Your task to perform on an android device: When is my next appointment? Image 0: 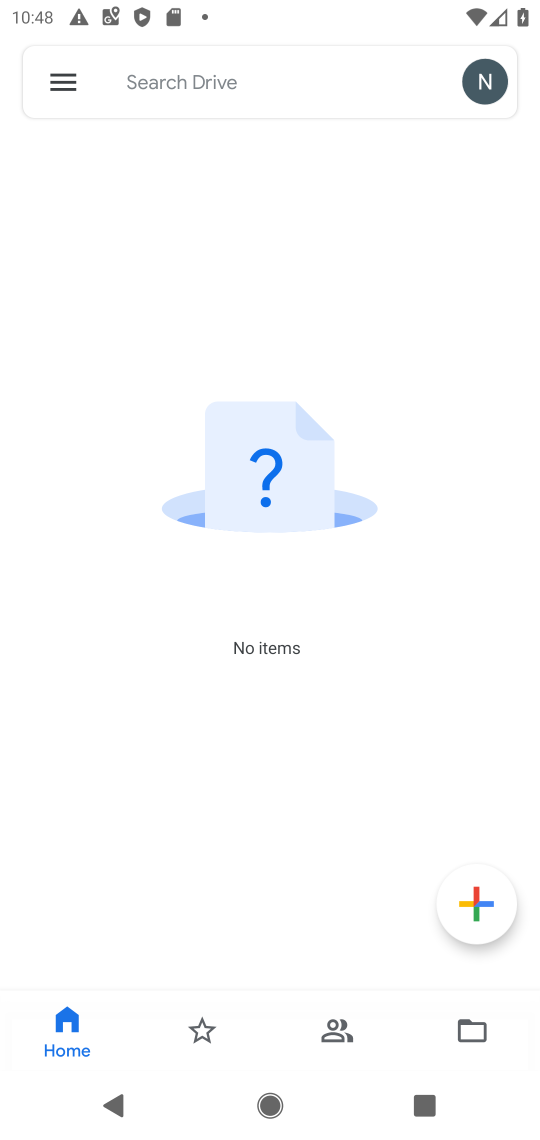
Step 0: press enter
Your task to perform on an android device: When is my next appointment? Image 1: 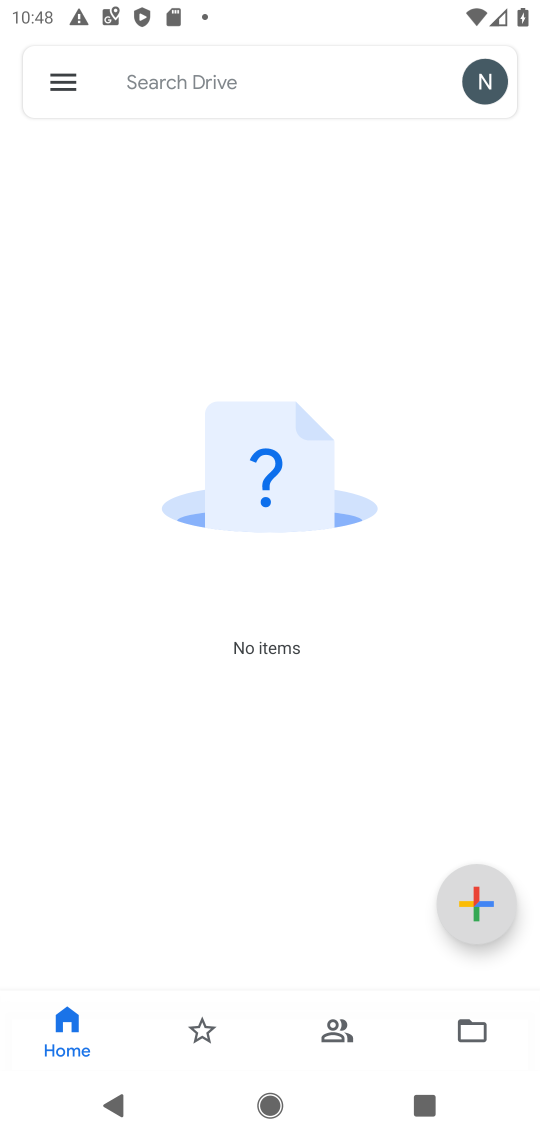
Step 1: press home button
Your task to perform on an android device: When is my next appointment? Image 2: 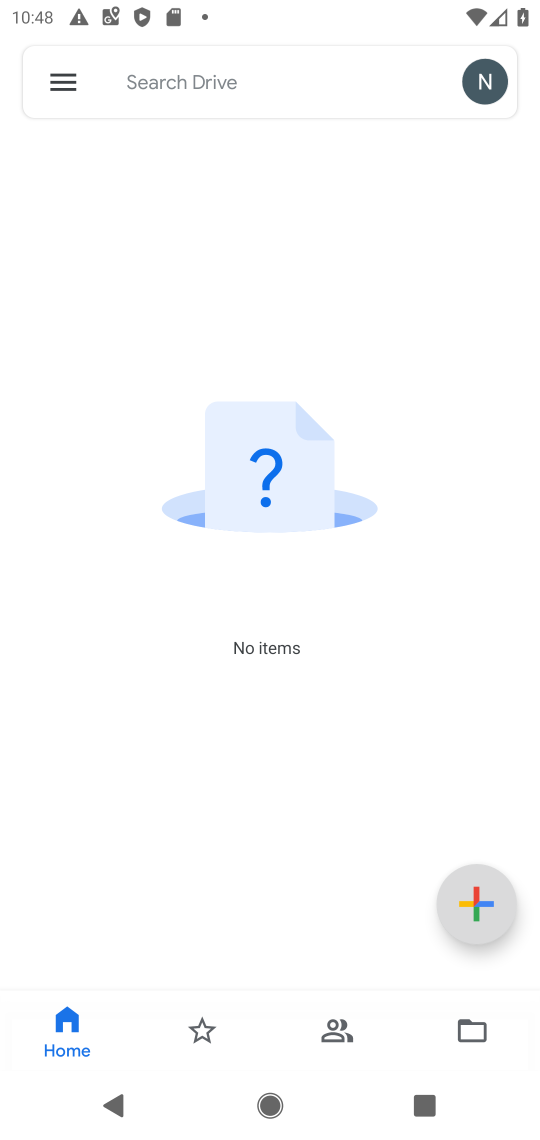
Step 2: press home button
Your task to perform on an android device: When is my next appointment? Image 3: 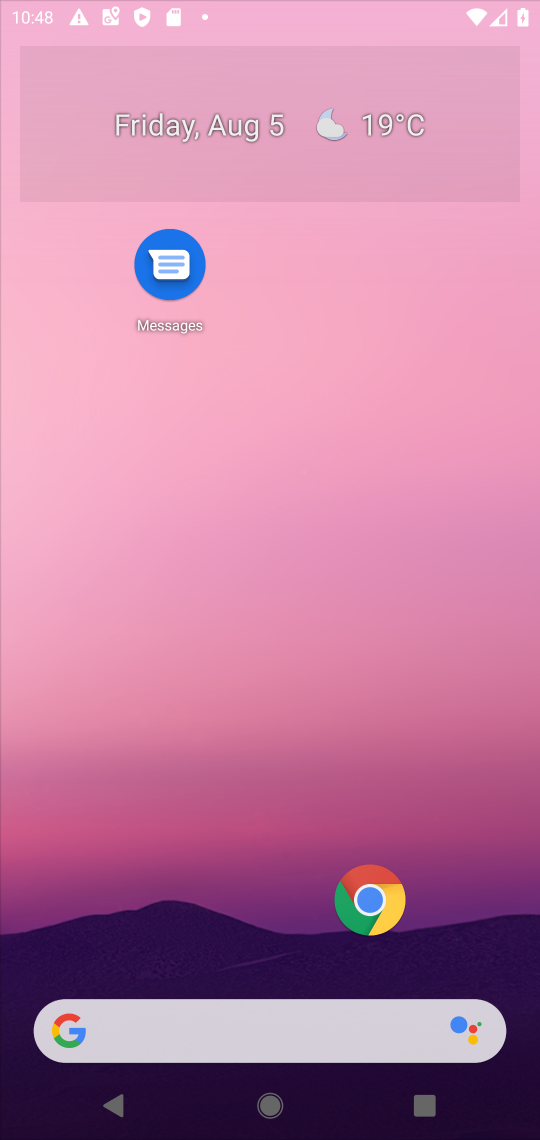
Step 3: press home button
Your task to perform on an android device: When is my next appointment? Image 4: 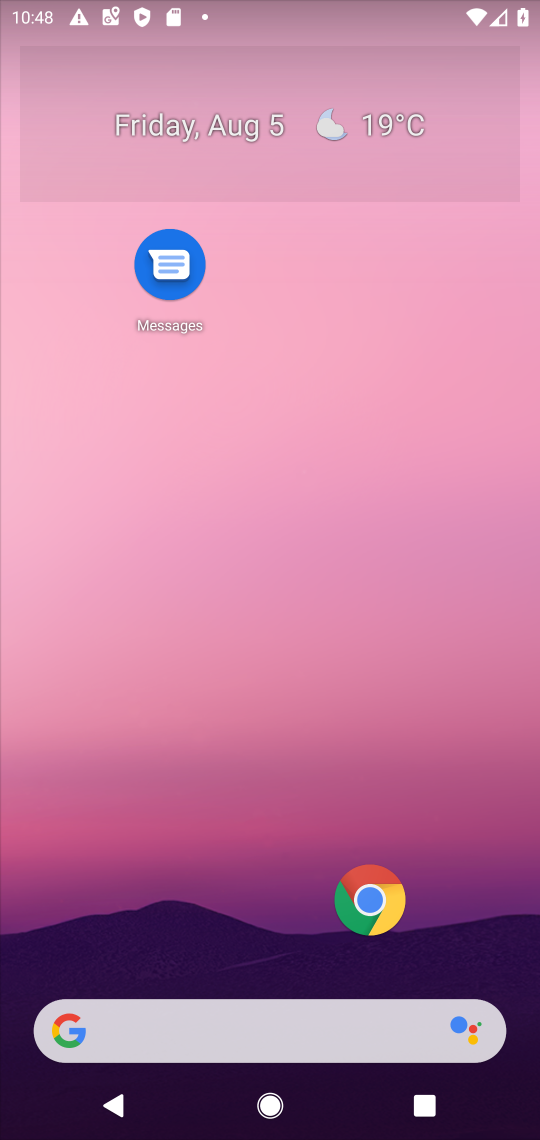
Step 4: drag from (131, 1034) to (127, 365)
Your task to perform on an android device: When is my next appointment? Image 5: 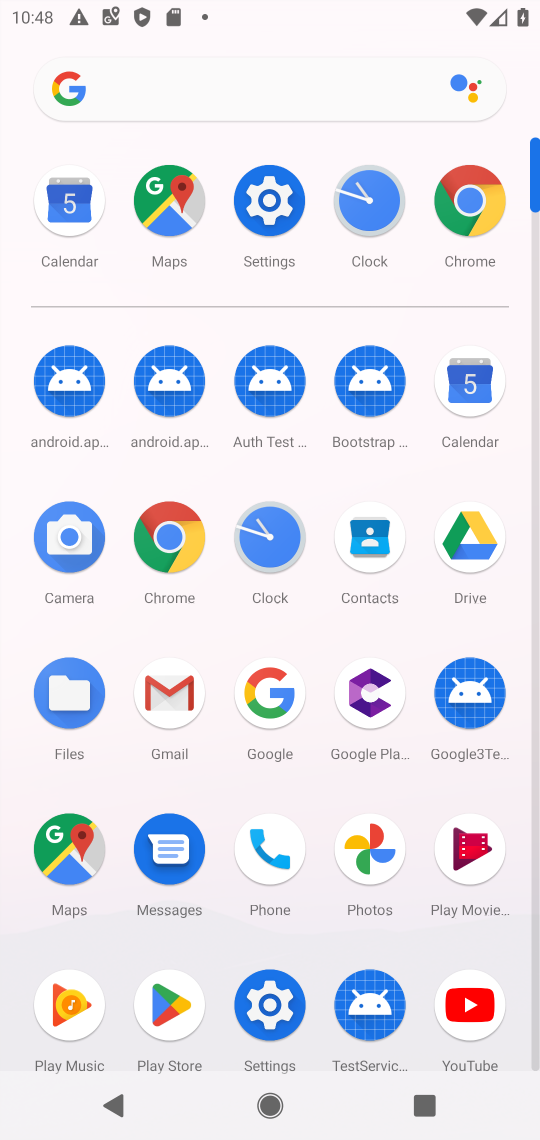
Step 5: click (459, 399)
Your task to perform on an android device: When is my next appointment? Image 6: 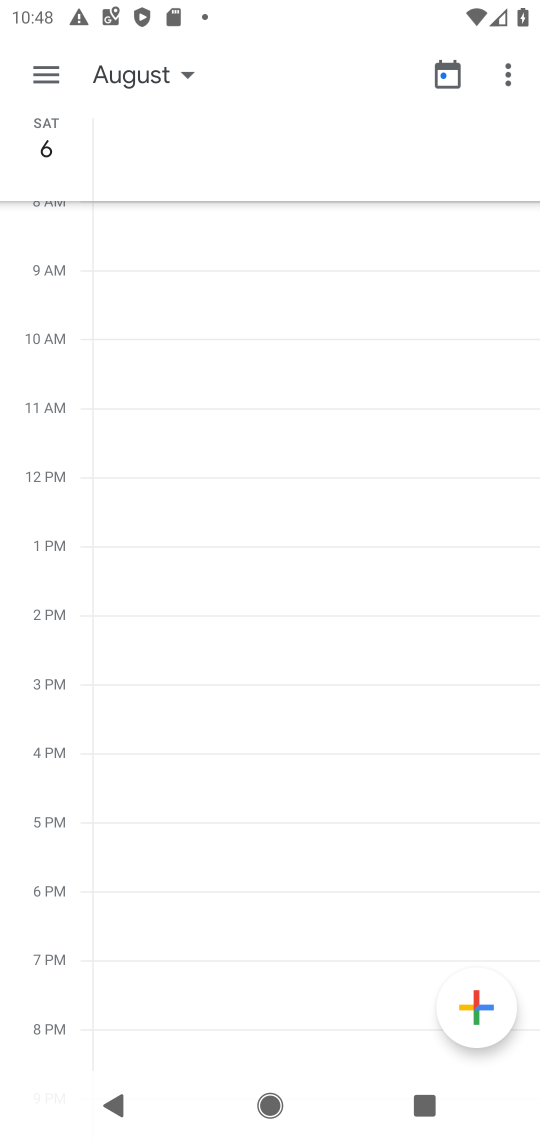
Step 6: click (141, 83)
Your task to perform on an android device: When is my next appointment? Image 7: 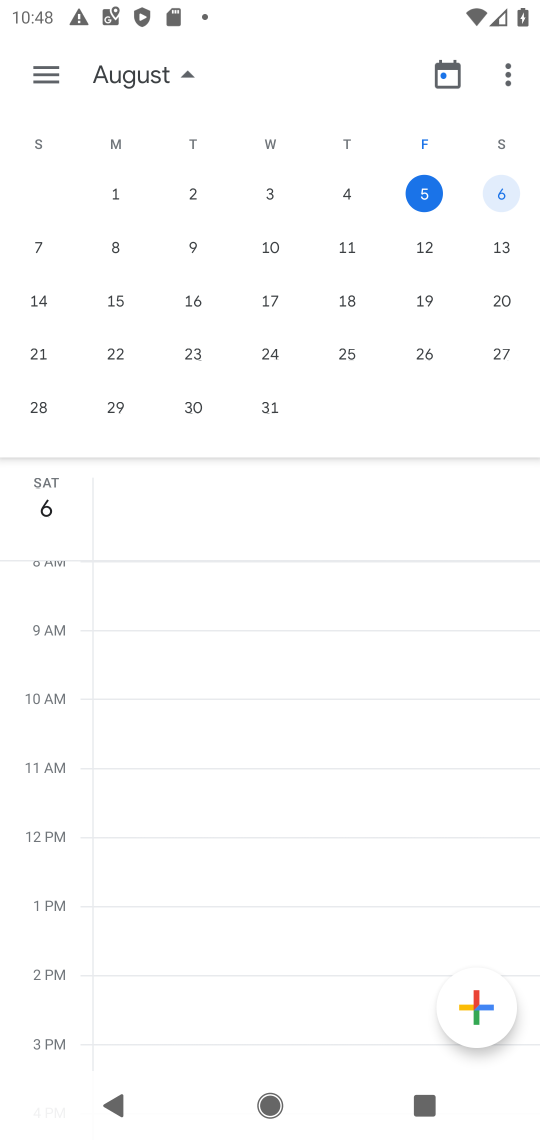
Step 7: click (51, 247)
Your task to perform on an android device: When is my next appointment? Image 8: 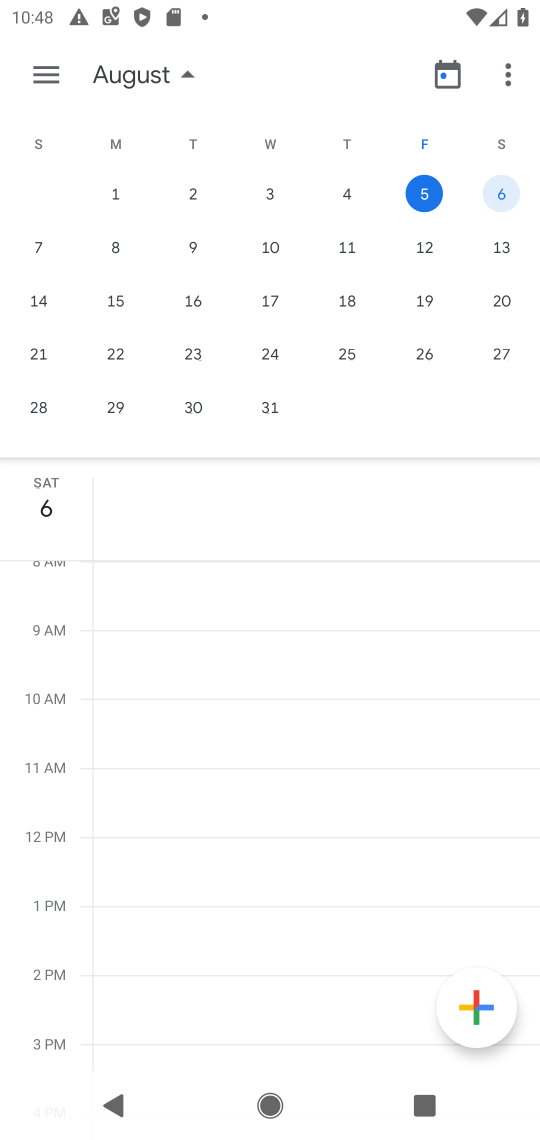
Step 8: click (493, 206)
Your task to perform on an android device: When is my next appointment? Image 9: 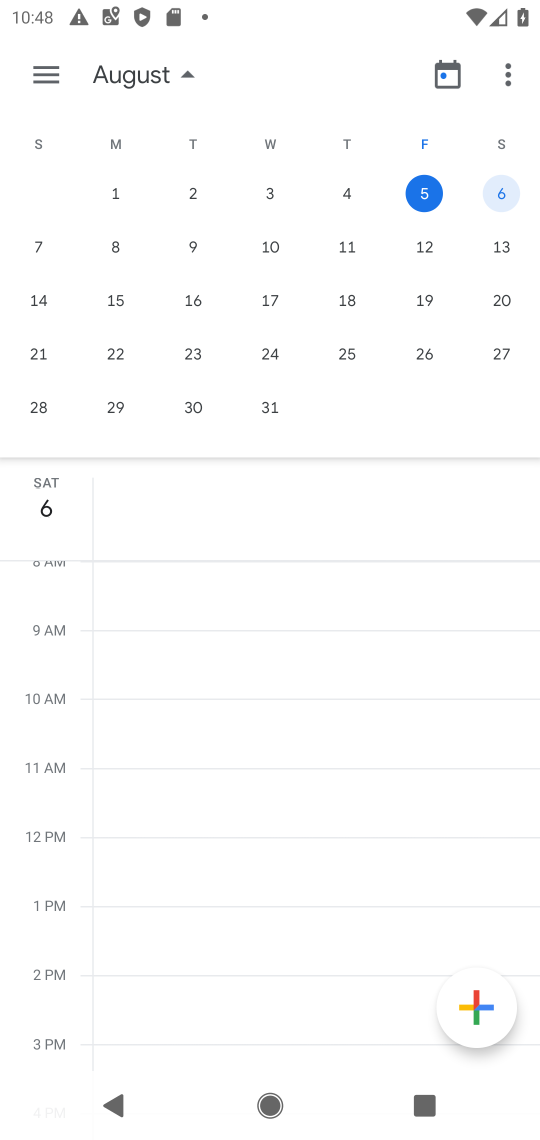
Step 9: click (497, 191)
Your task to perform on an android device: When is my next appointment? Image 10: 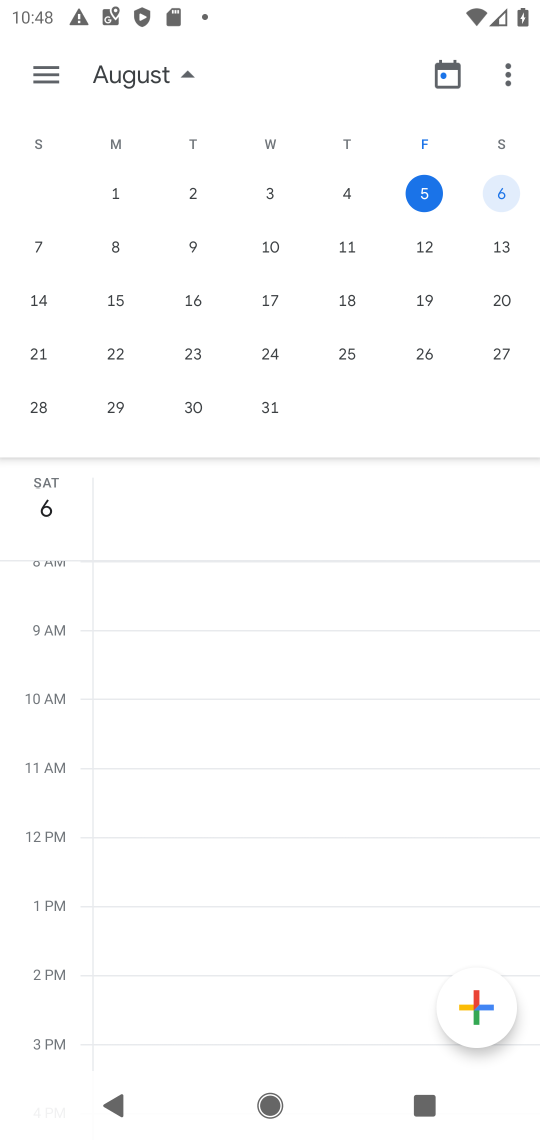
Step 10: task complete